Your task to perform on an android device: Go to Yahoo.com Image 0: 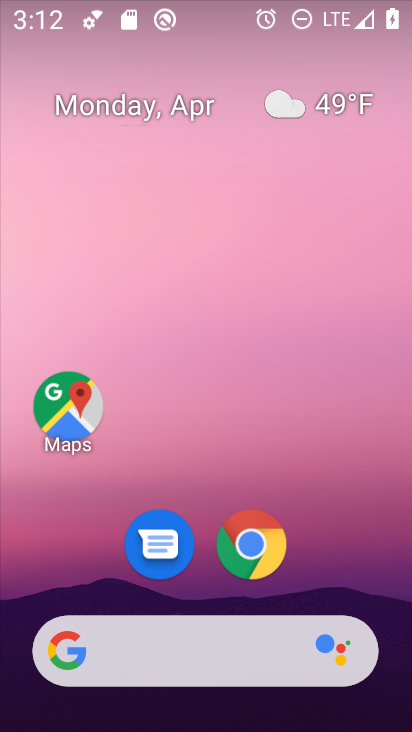
Step 0: click (249, 550)
Your task to perform on an android device: Go to Yahoo.com Image 1: 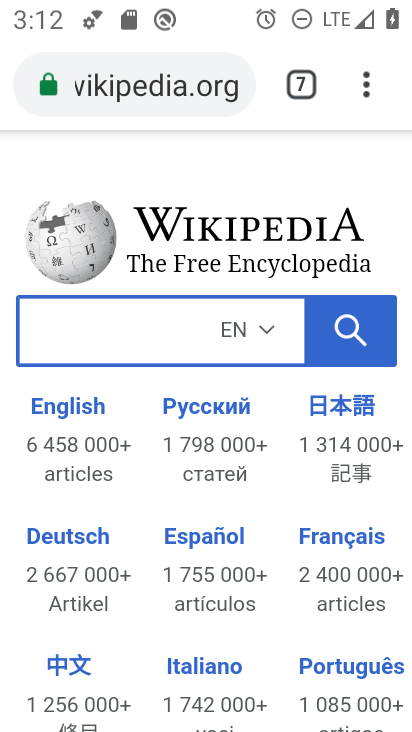
Step 1: click (293, 82)
Your task to perform on an android device: Go to Yahoo.com Image 2: 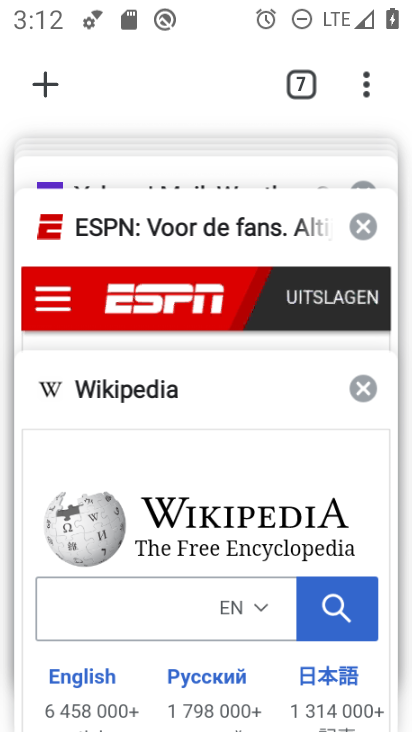
Step 2: click (44, 80)
Your task to perform on an android device: Go to Yahoo.com Image 3: 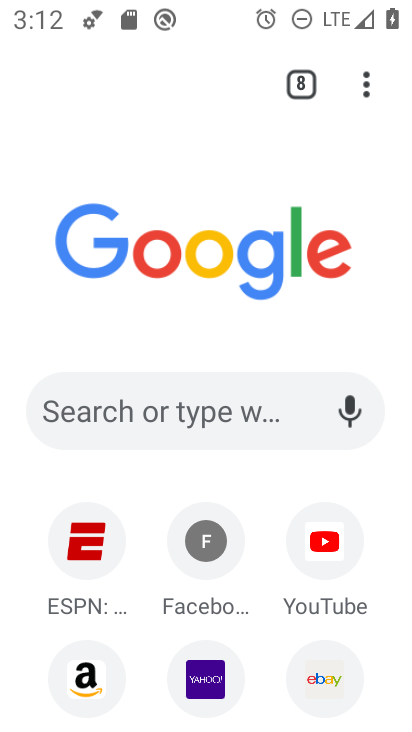
Step 3: click (198, 681)
Your task to perform on an android device: Go to Yahoo.com Image 4: 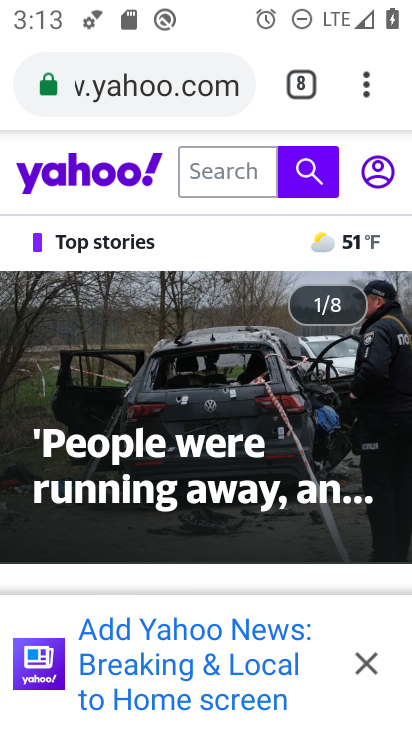
Step 4: task complete